Your task to perform on an android device: turn pop-ups on in chrome Image 0: 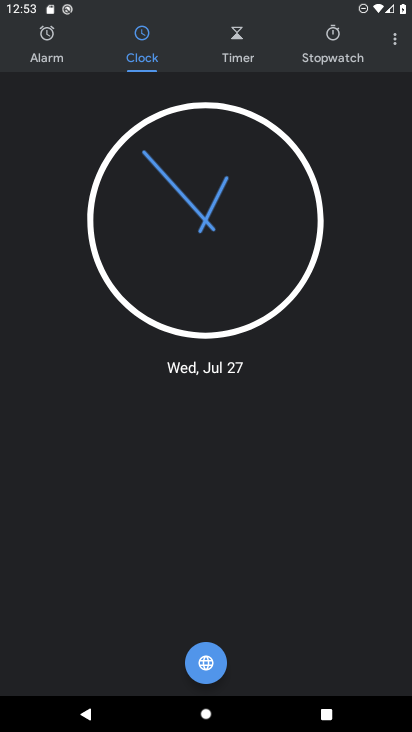
Step 0: press home button
Your task to perform on an android device: turn pop-ups on in chrome Image 1: 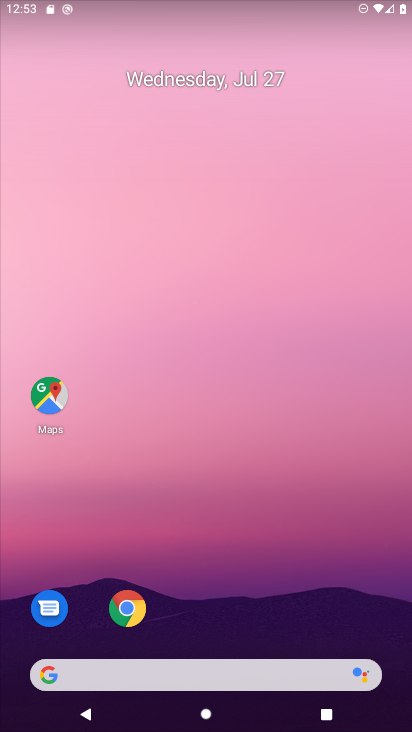
Step 1: click (131, 609)
Your task to perform on an android device: turn pop-ups on in chrome Image 2: 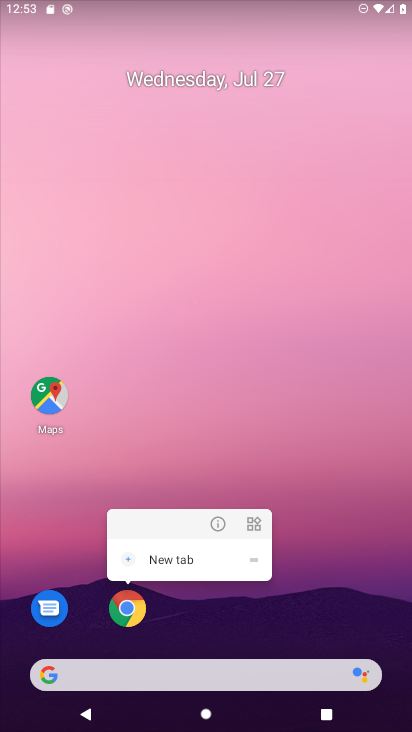
Step 2: click (129, 622)
Your task to perform on an android device: turn pop-ups on in chrome Image 3: 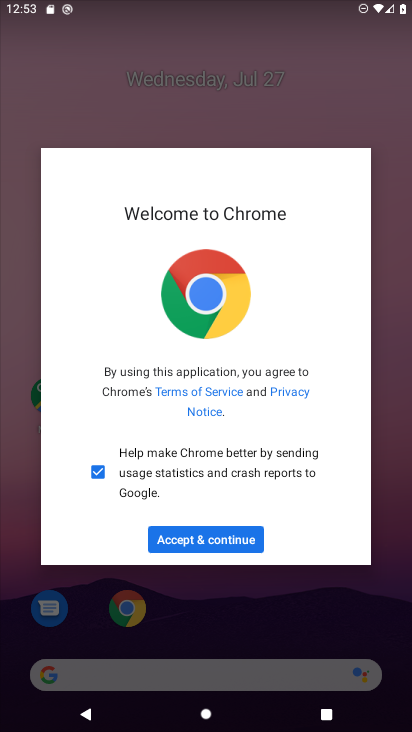
Step 3: click (219, 541)
Your task to perform on an android device: turn pop-ups on in chrome Image 4: 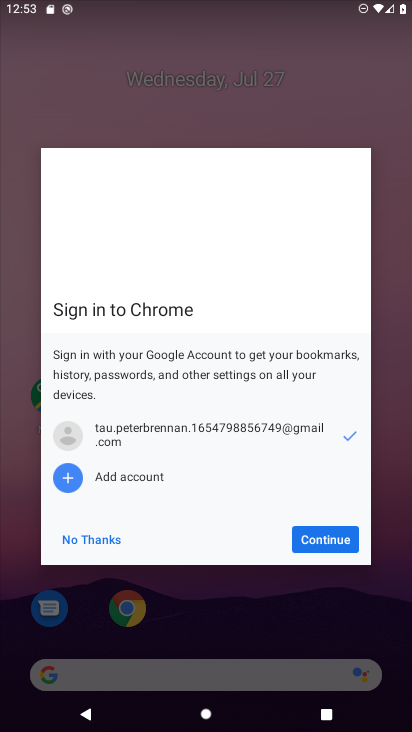
Step 4: click (325, 543)
Your task to perform on an android device: turn pop-ups on in chrome Image 5: 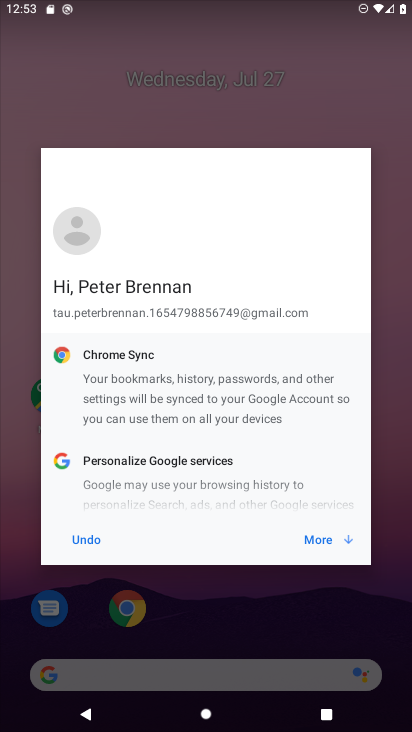
Step 5: click (324, 542)
Your task to perform on an android device: turn pop-ups on in chrome Image 6: 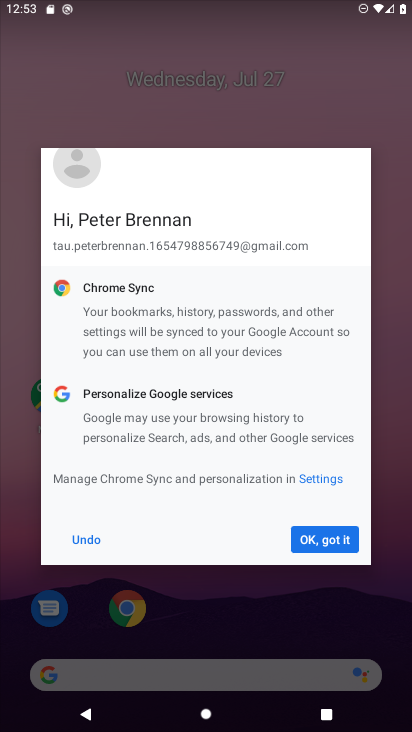
Step 6: click (324, 542)
Your task to perform on an android device: turn pop-ups on in chrome Image 7: 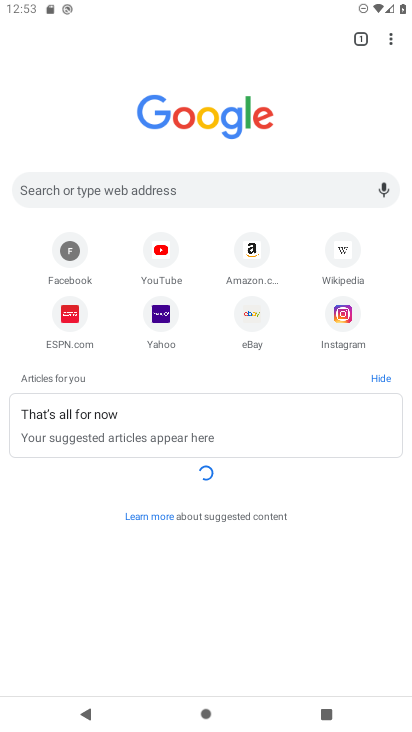
Step 7: click (387, 35)
Your task to perform on an android device: turn pop-ups on in chrome Image 8: 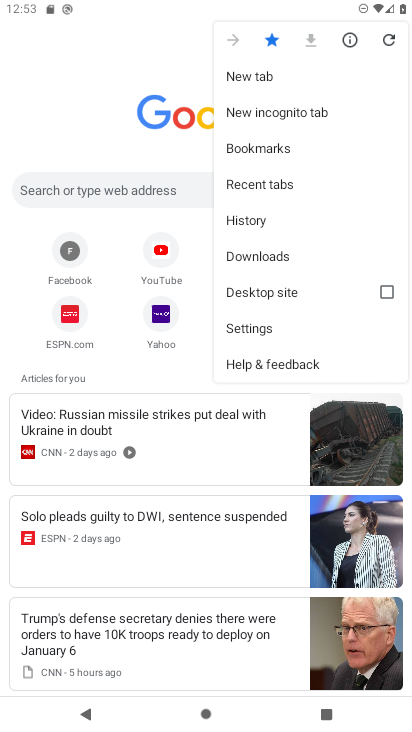
Step 8: click (258, 333)
Your task to perform on an android device: turn pop-ups on in chrome Image 9: 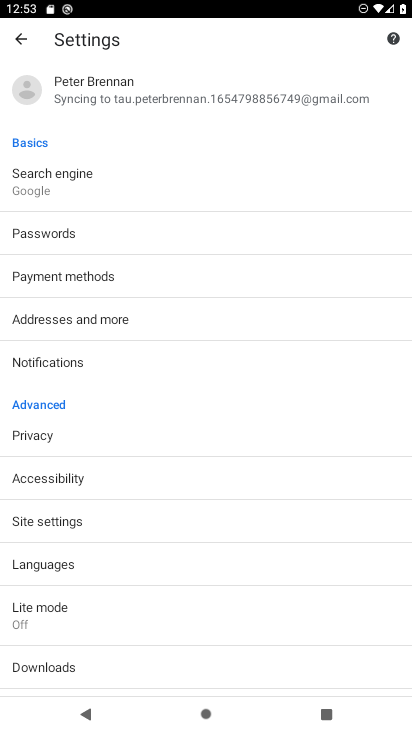
Step 9: click (66, 519)
Your task to perform on an android device: turn pop-ups on in chrome Image 10: 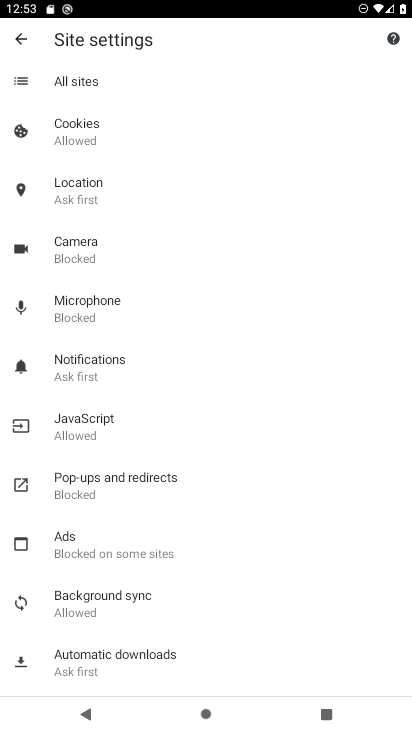
Step 10: click (83, 489)
Your task to perform on an android device: turn pop-ups on in chrome Image 11: 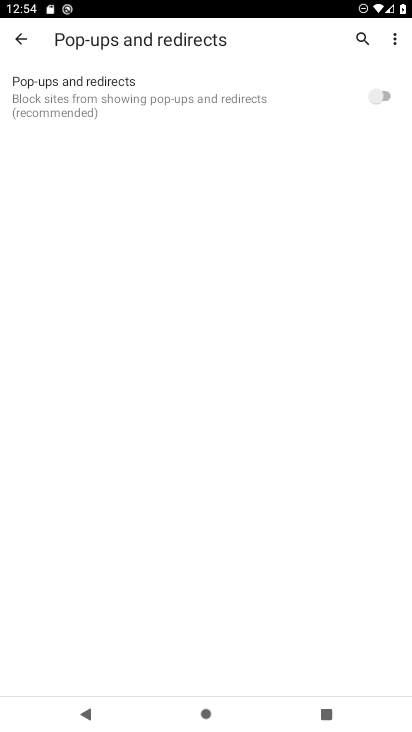
Step 11: click (394, 96)
Your task to perform on an android device: turn pop-ups on in chrome Image 12: 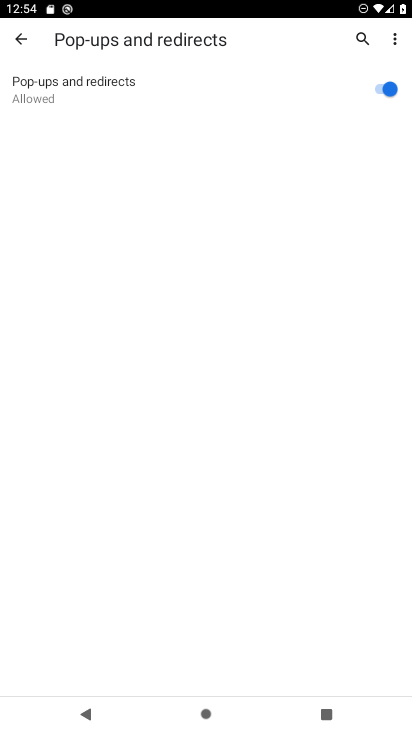
Step 12: task complete